Your task to perform on an android device: Show me recent news Image 0: 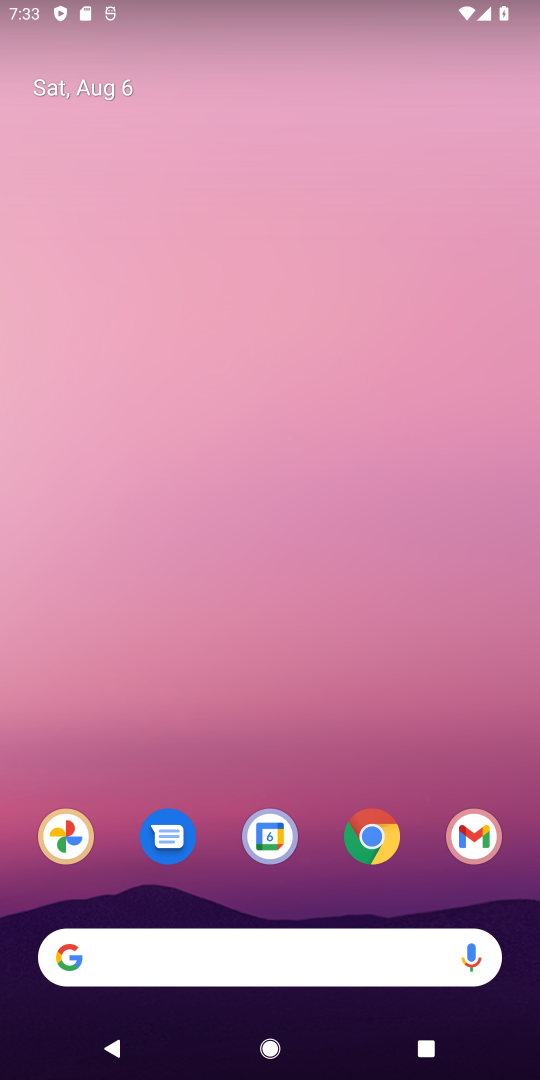
Step 0: drag from (299, 927) to (381, 250)
Your task to perform on an android device: Show me recent news Image 1: 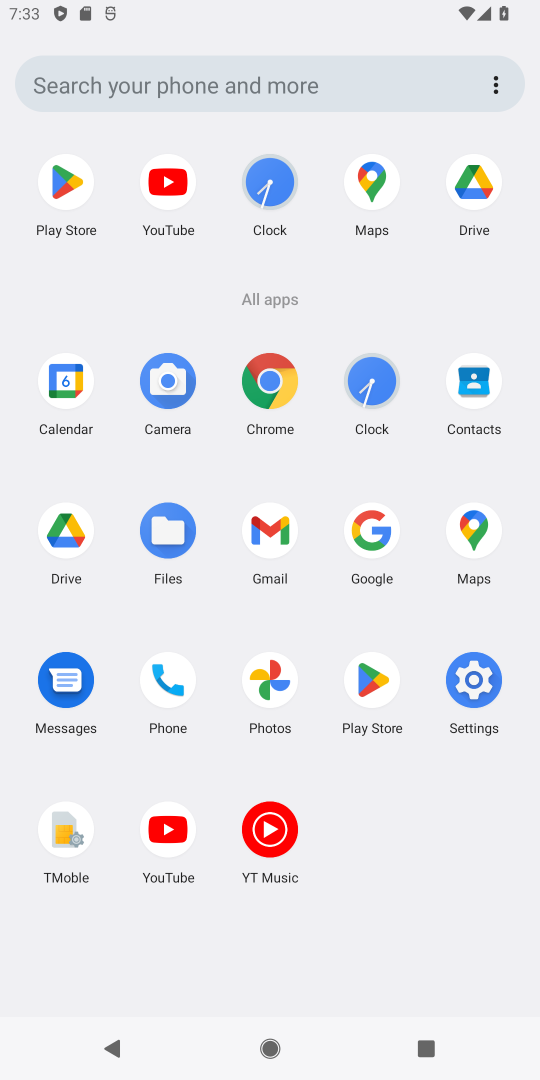
Step 1: click (368, 541)
Your task to perform on an android device: Show me recent news Image 2: 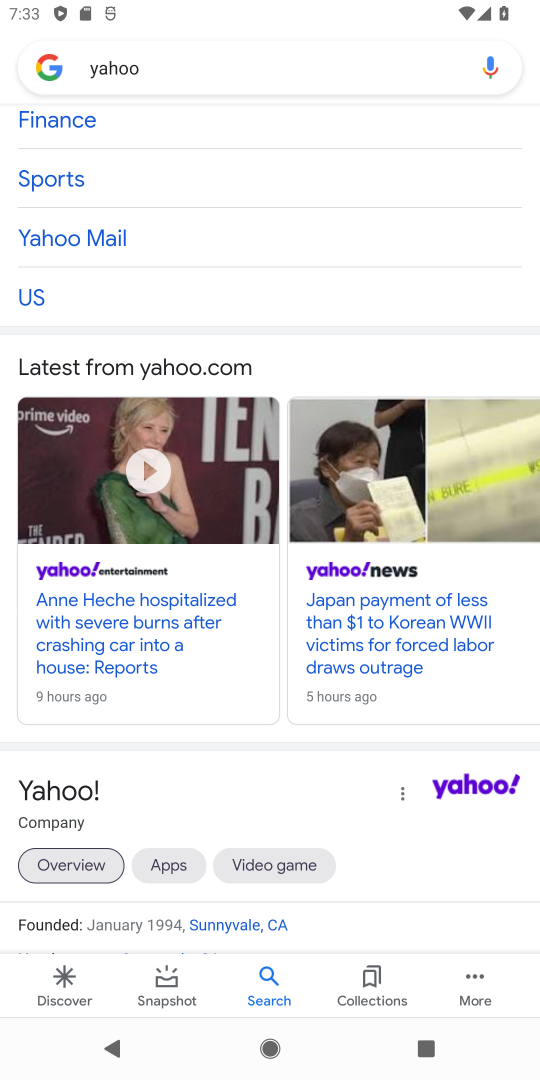
Step 2: click (169, 74)
Your task to perform on an android device: Show me recent news Image 3: 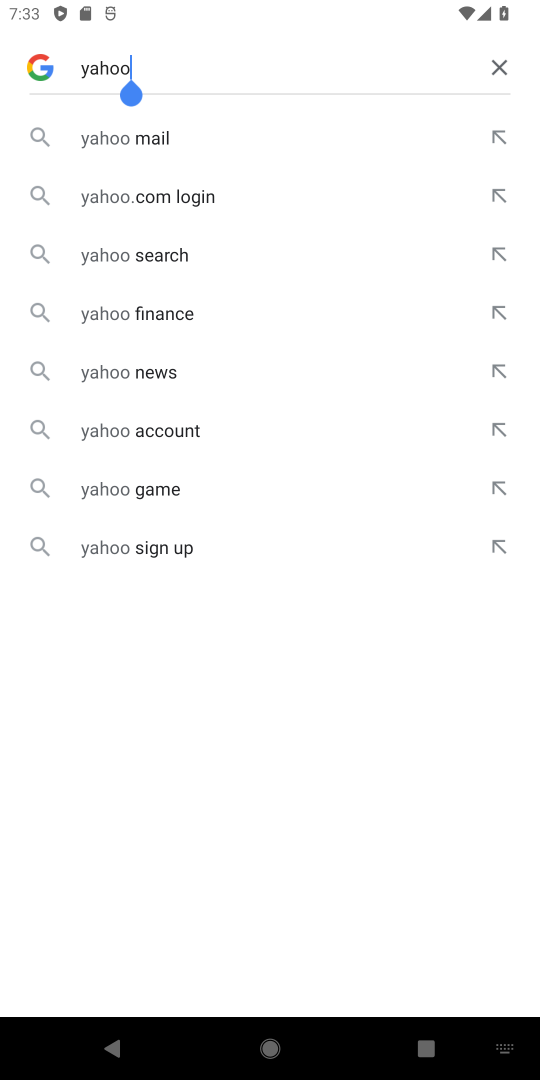
Step 3: click (499, 67)
Your task to perform on an android device: Show me recent news Image 4: 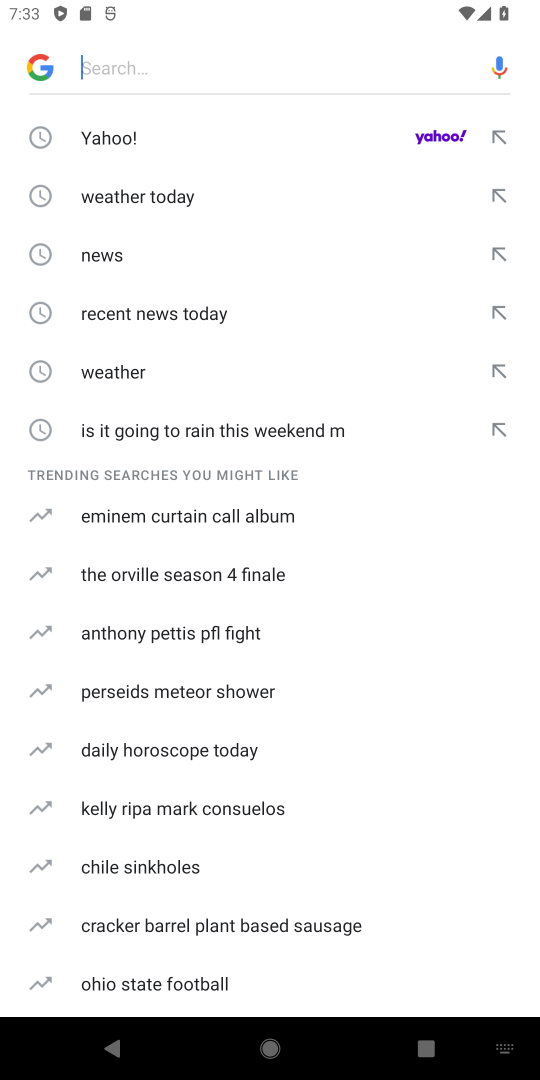
Step 4: click (99, 256)
Your task to perform on an android device: Show me recent news Image 5: 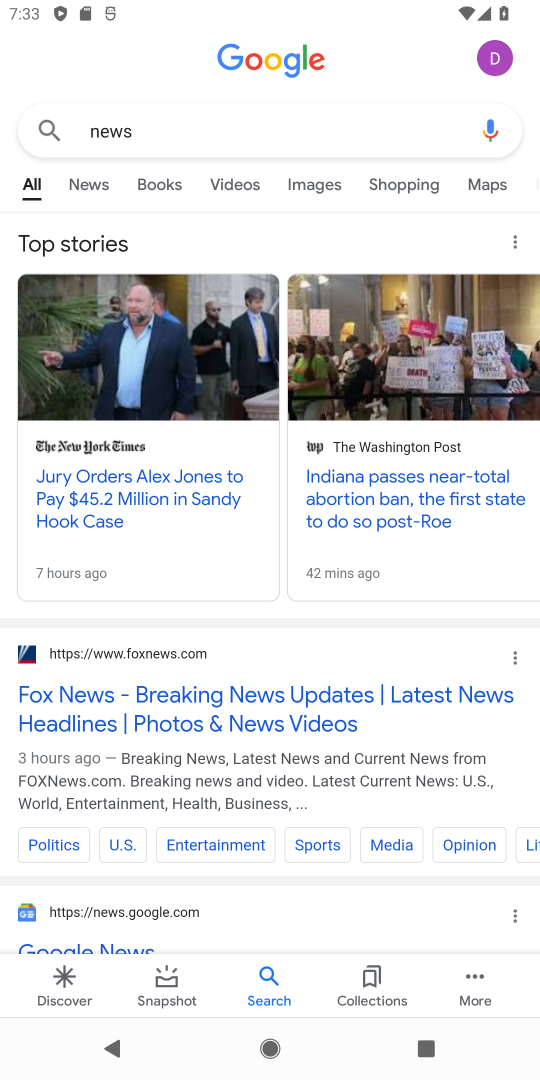
Step 5: task complete